Your task to perform on an android device: change the clock display to show seconds Image 0: 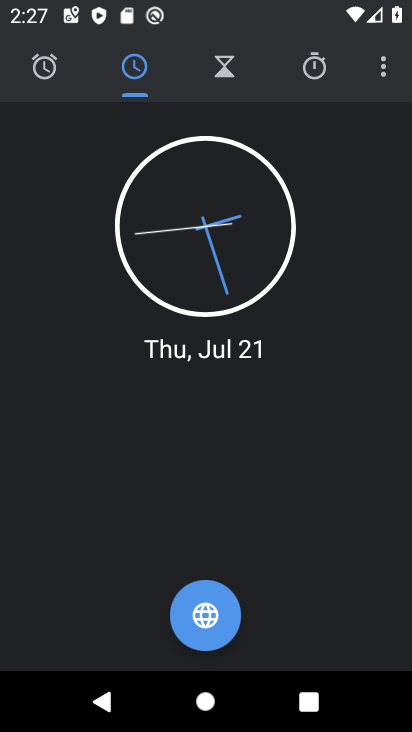
Step 0: click (386, 66)
Your task to perform on an android device: change the clock display to show seconds Image 1: 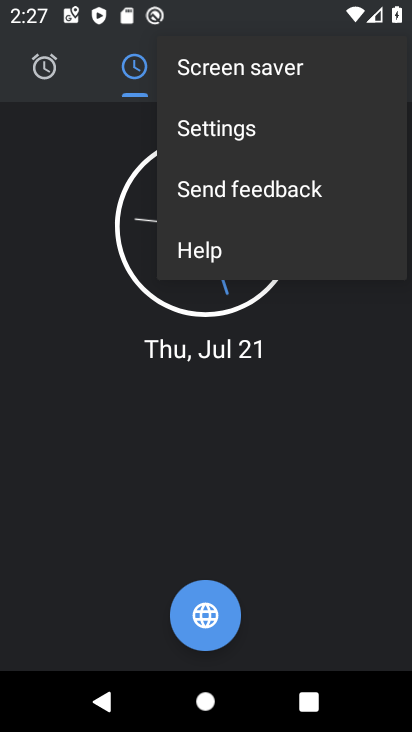
Step 1: click (259, 126)
Your task to perform on an android device: change the clock display to show seconds Image 2: 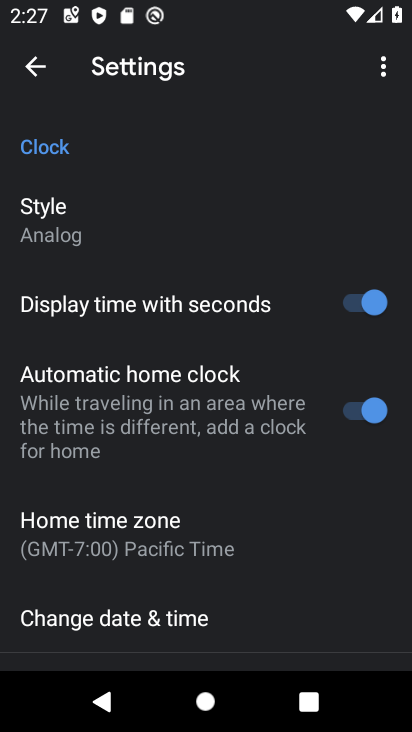
Step 2: click (34, 65)
Your task to perform on an android device: change the clock display to show seconds Image 3: 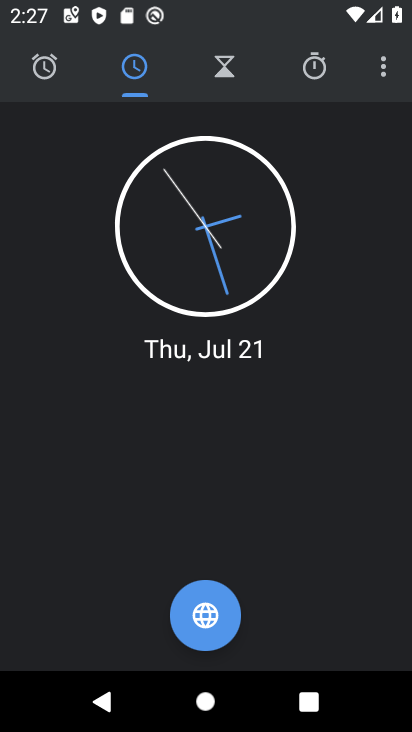
Step 3: task complete